Your task to perform on an android device: change the upload size in google photos Image 0: 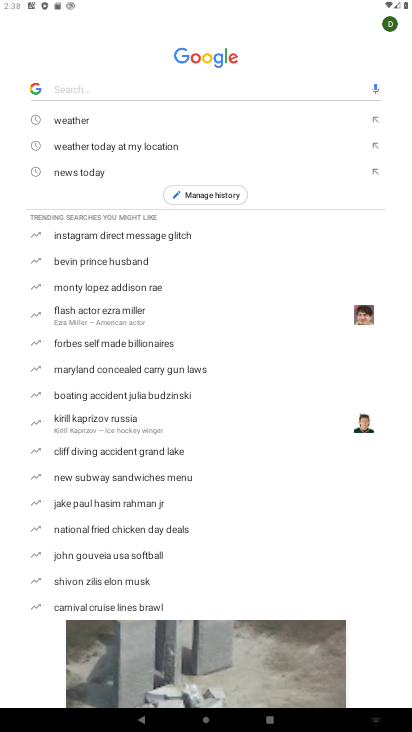
Step 0: press back button
Your task to perform on an android device: change the upload size in google photos Image 1: 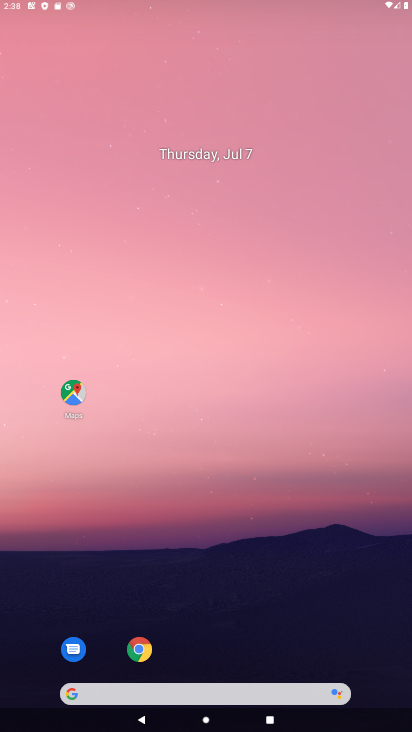
Step 1: drag from (195, 639) to (274, 9)
Your task to perform on an android device: change the upload size in google photos Image 2: 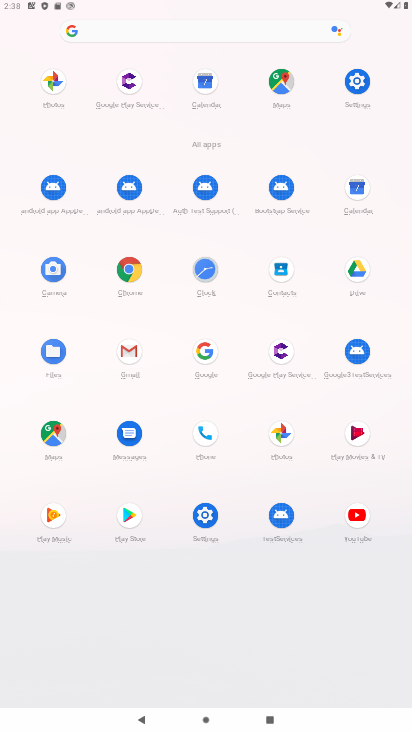
Step 2: click (279, 439)
Your task to perform on an android device: change the upload size in google photos Image 3: 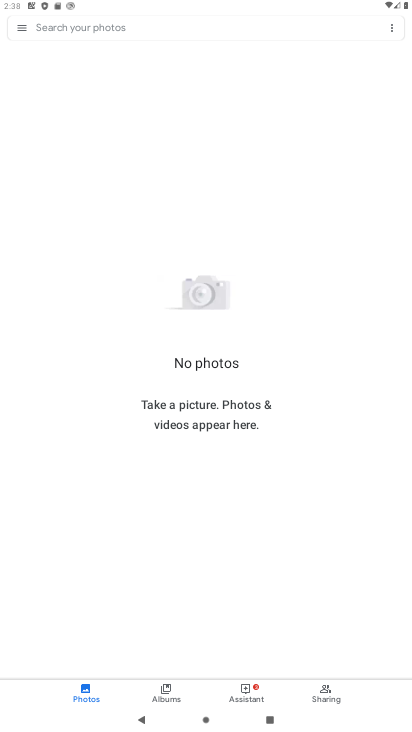
Step 3: click (24, 19)
Your task to perform on an android device: change the upload size in google photos Image 4: 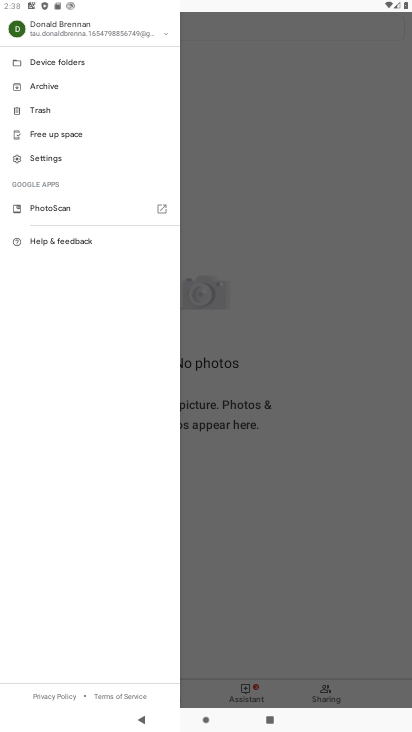
Step 4: click (70, 28)
Your task to perform on an android device: change the upload size in google photos Image 5: 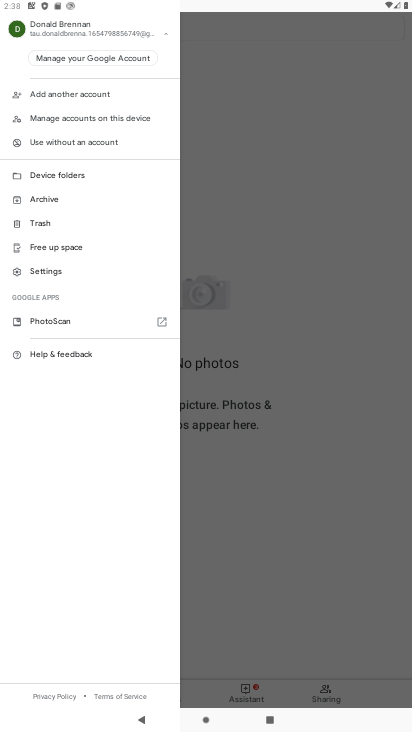
Step 5: click (49, 272)
Your task to perform on an android device: change the upload size in google photos Image 6: 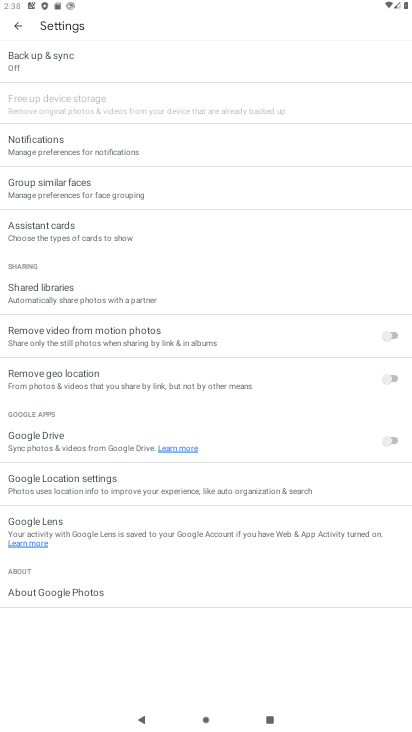
Step 6: click (68, 57)
Your task to perform on an android device: change the upload size in google photos Image 7: 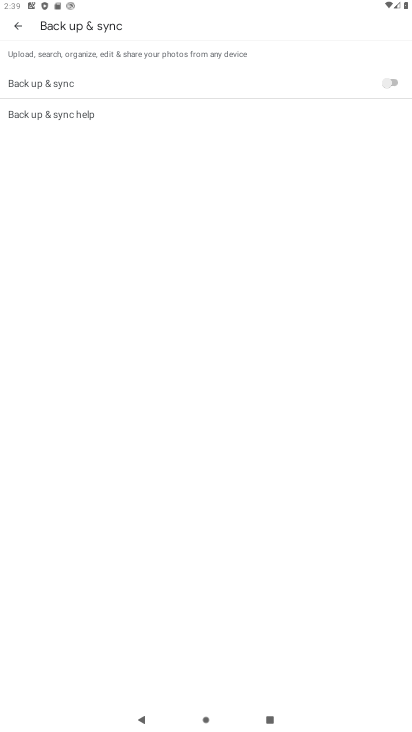
Step 7: task complete